Your task to perform on an android device: open device folders in google photos Image 0: 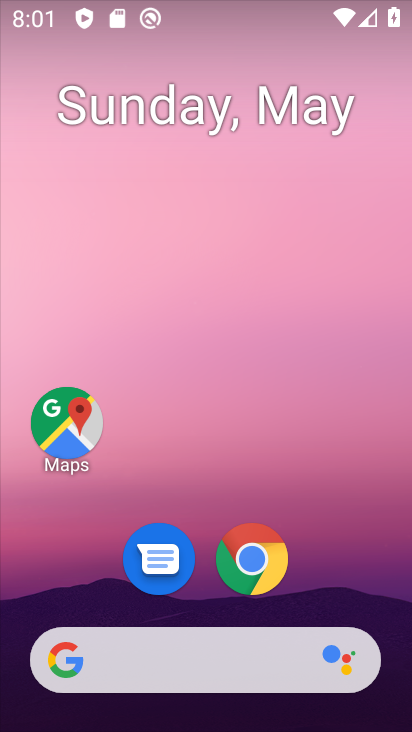
Step 0: drag from (308, 600) to (327, 124)
Your task to perform on an android device: open device folders in google photos Image 1: 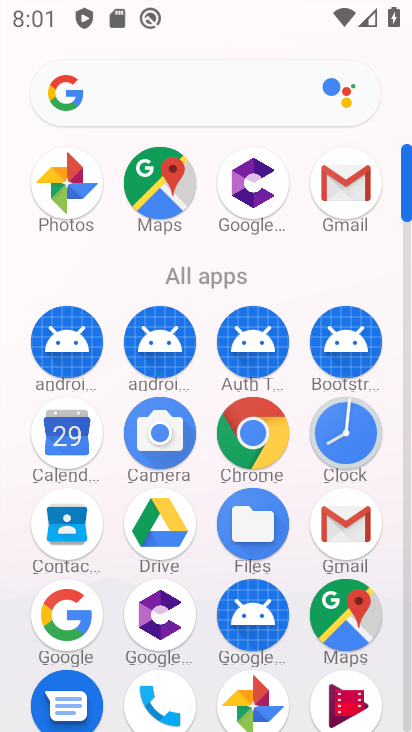
Step 1: click (236, 689)
Your task to perform on an android device: open device folders in google photos Image 2: 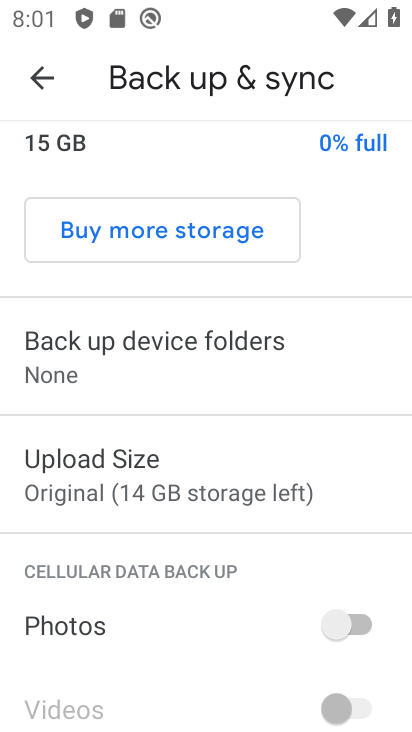
Step 2: click (56, 70)
Your task to perform on an android device: open device folders in google photos Image 3: 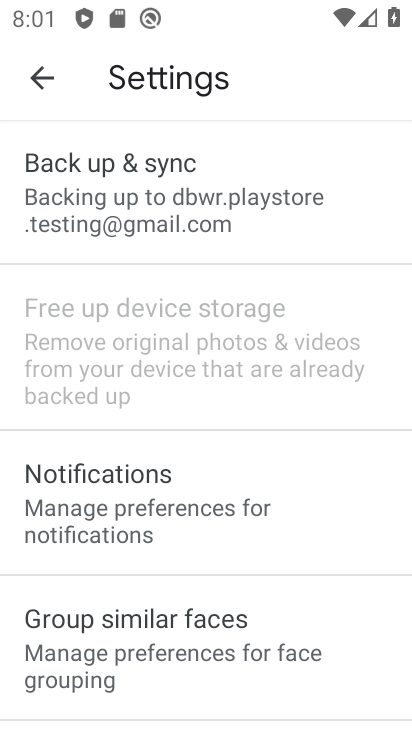
Step 3: click (62, 72)
Your task to perform on an android device: open device folders in google photos Image 4: 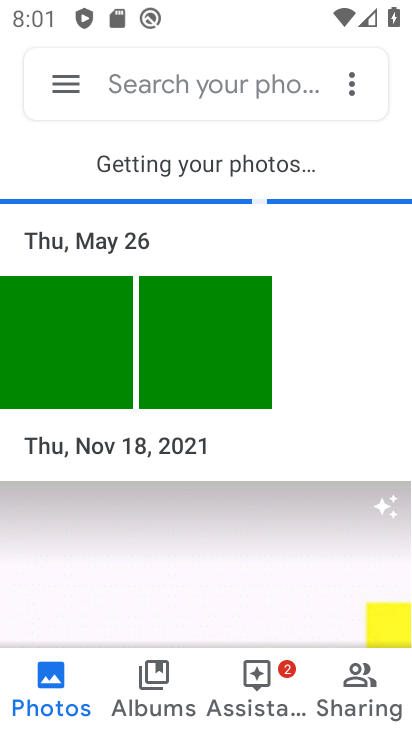
Step 4: click (81, 74)
Your task to perform on an android device: open device folders in google photos Image 5: 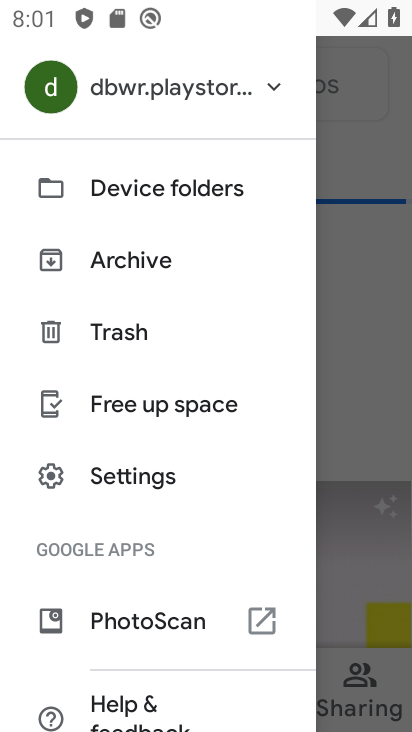
Step 5: click (142, 179)
Your task to perform on an android device: open device folders in google photos Image 6: 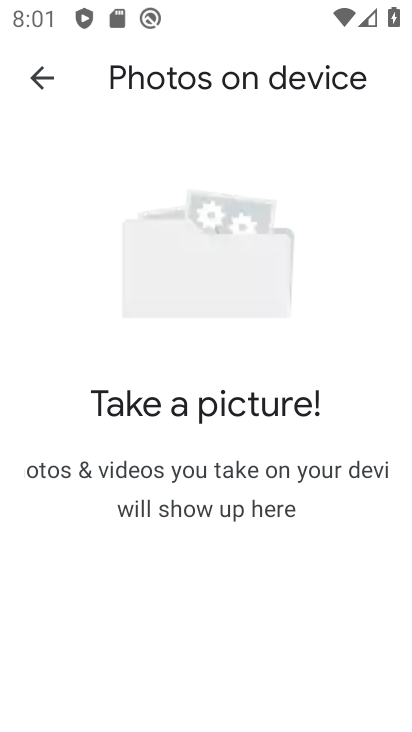
Step 6: task complete